Your task to perform on an android device: manage bookmarks in the chrome app Image 0: 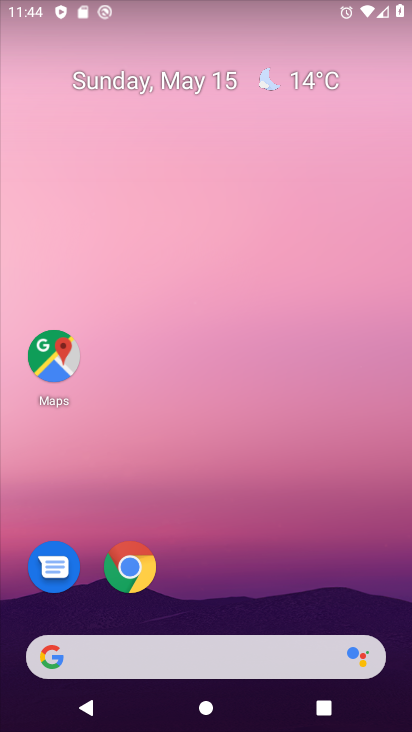
Step 0: click (135, 573)
Your task to perform on an android device: manage bookmarks in the chrome app Image 1: 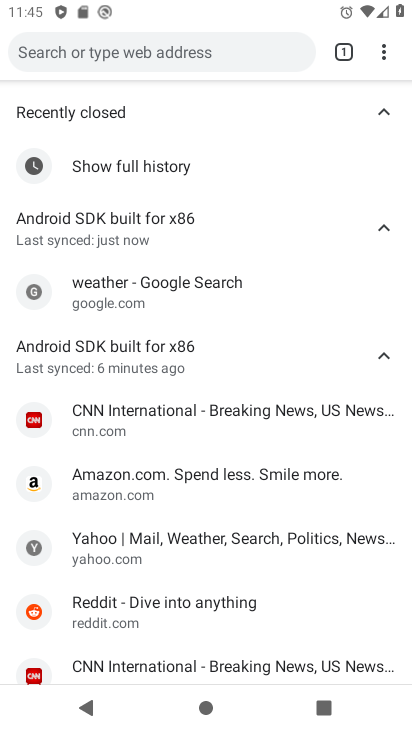
Step 1: click (378, 60)
Your task to perform on an android device: manage bookmarks in the chrome app Image 2: 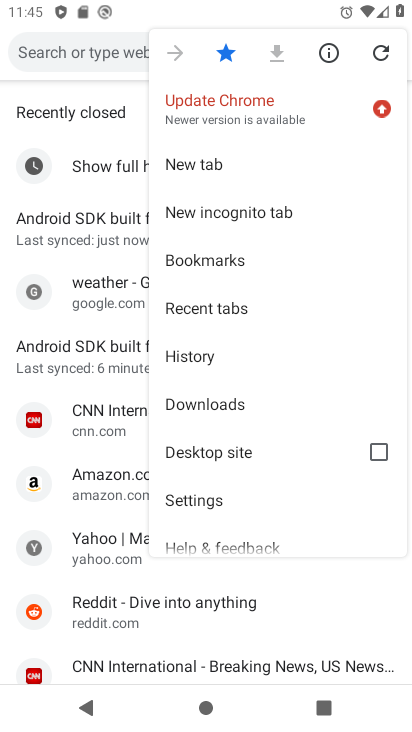
Step 2: click (225, 254)
Your task to perform on an android device: manage bookmarks in the chrome app Image 3: 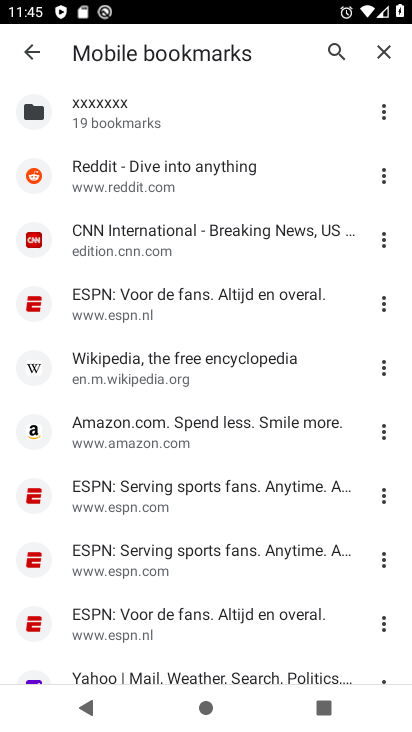
Step 3: click (383, 178)
Your task to perform on an android device: manage bookmarks in the chrome app Image 4: 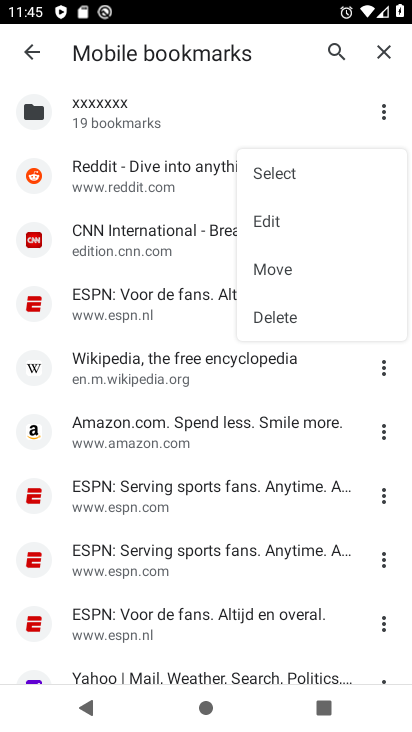
Step 4: click (326, 314)
Your task to perform on an android device: manage bookmarks in the chrome app Image 5: 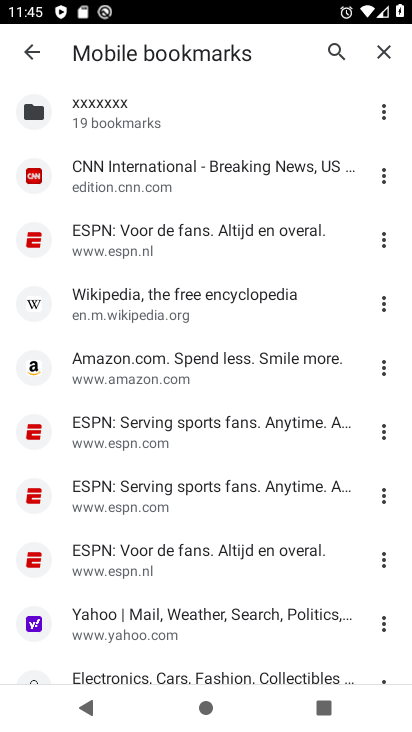
Step 5: task complete